Your task to perform on an android device: Add "dell xps" to the cart on target Image 0: 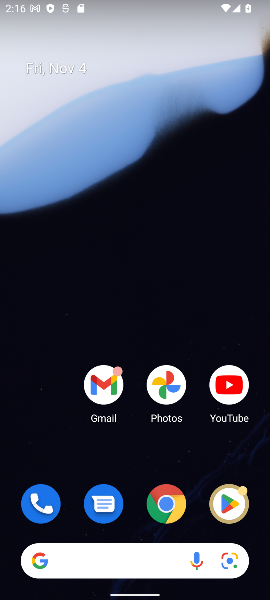
Step 0: click (160, 507)
Your task to perform on an android device: Add "dell xps" to the cart on target Image 1: 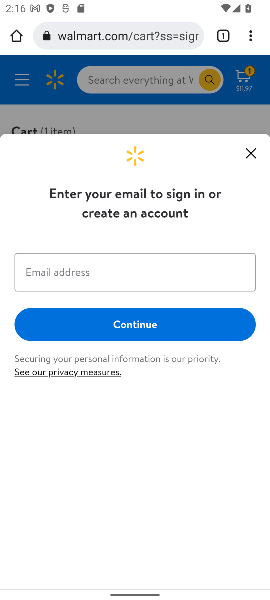
Step 1: click (108, 41)
Your task to perform on an android device: Add "dell xps" to the cart on target Image 2: 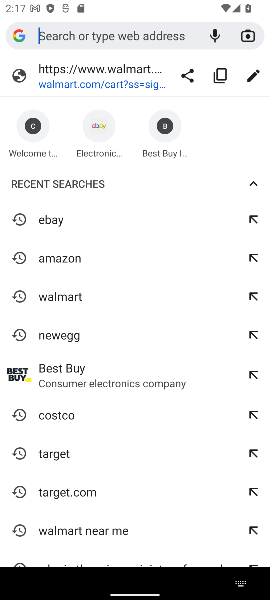
Step 2: click (62, 496)
Your task to perform on an android device: Add "dell xps" to the cart on target Image 3: 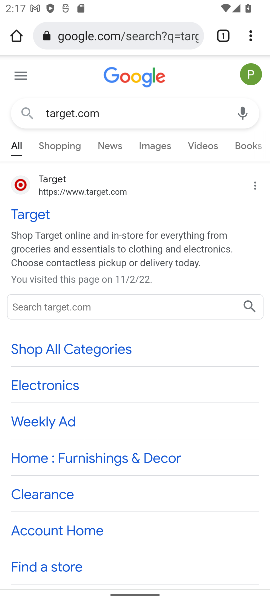
Step 3: drag from (54, 195) to (28, 210)
Your task to perform on an android device: Add "dell xps" to the cart on target Image 4: 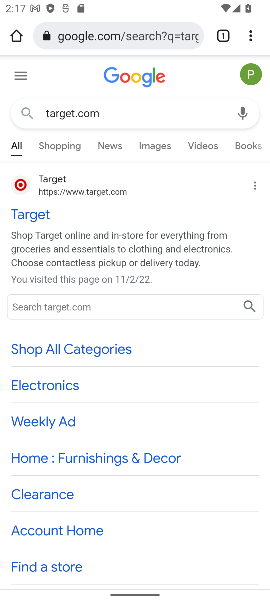
Step 4: click (40, 213)
Your task to perform on an android device: Add "dell xps" to the cart on target Image 5: 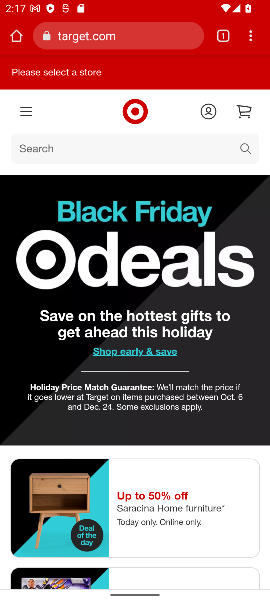
Step 5: click (238, 149)
Your task to perform on an android device: Add "dell xps" to the cart on target Image 6: 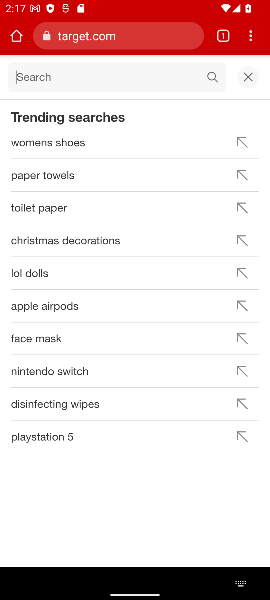
Step 6: type "dell xps"
Your task to perform on an android device: Add "dell xps" to the cart on target Image 7: 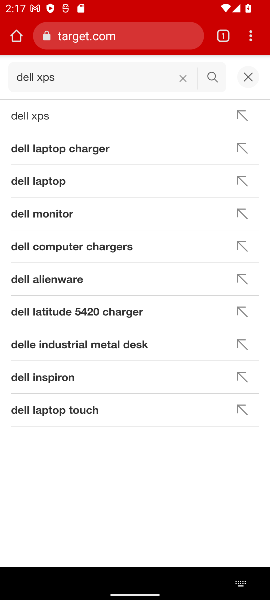
Step 7: click (33, 125)
Your task to perform on an android device: Add "dell xps" to the cart on target Image 8: 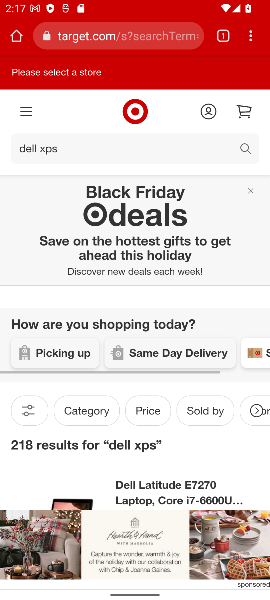
Step 8: task complete